Your task to perform on an android device: visit the assistant section in the google photos Image 0: 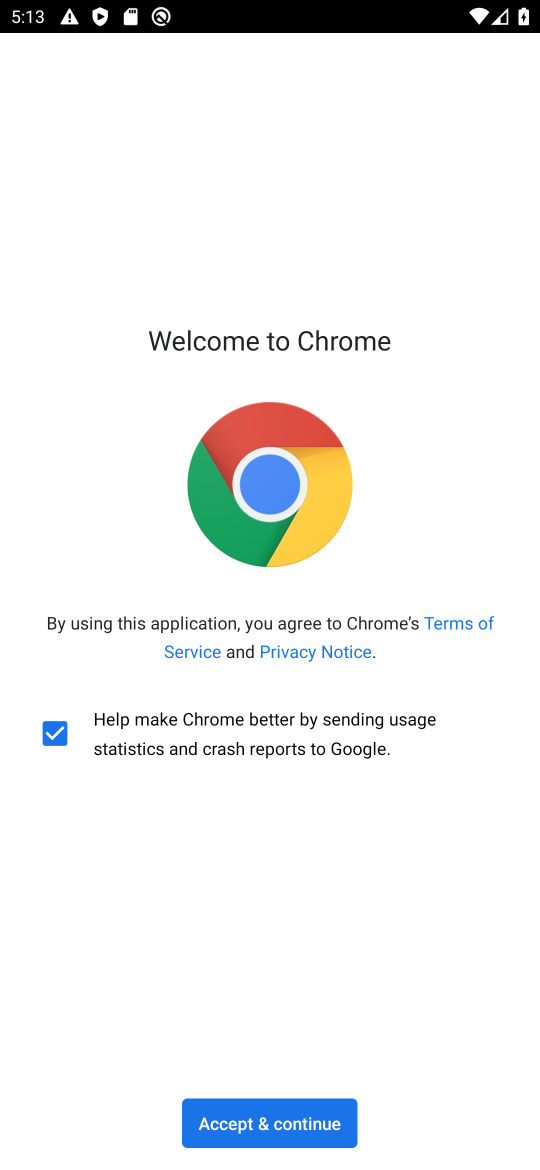
Step 0: press home button
Your task to perform on an android device: visit the assistant section in the google photos Image 1: 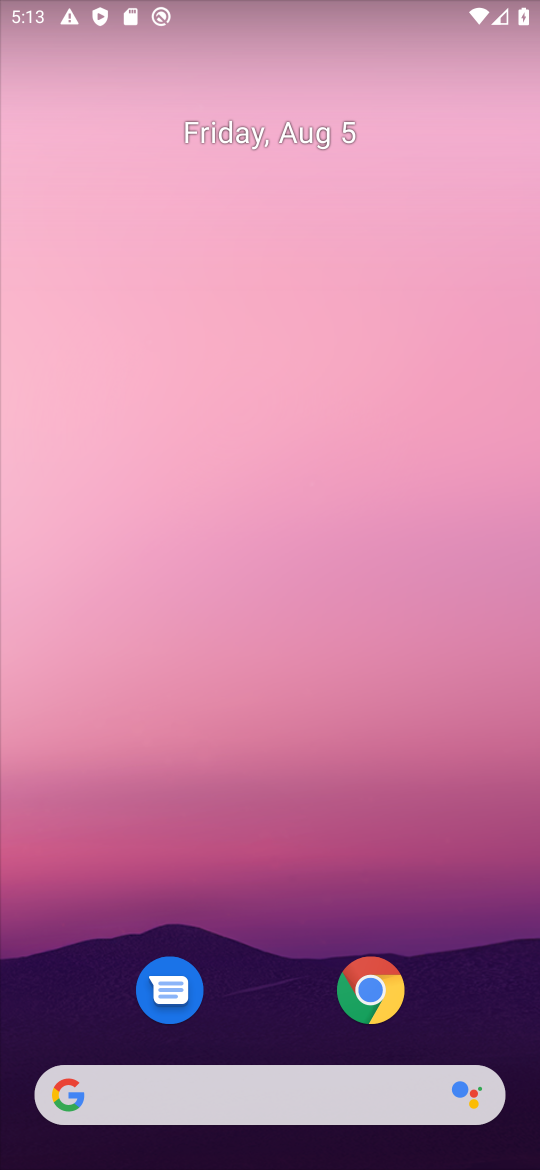
Step 1: drag from (191, 1052) to (233, 547)
Your task to perform on an android device: visit the assistant section in the google photos Image 2: 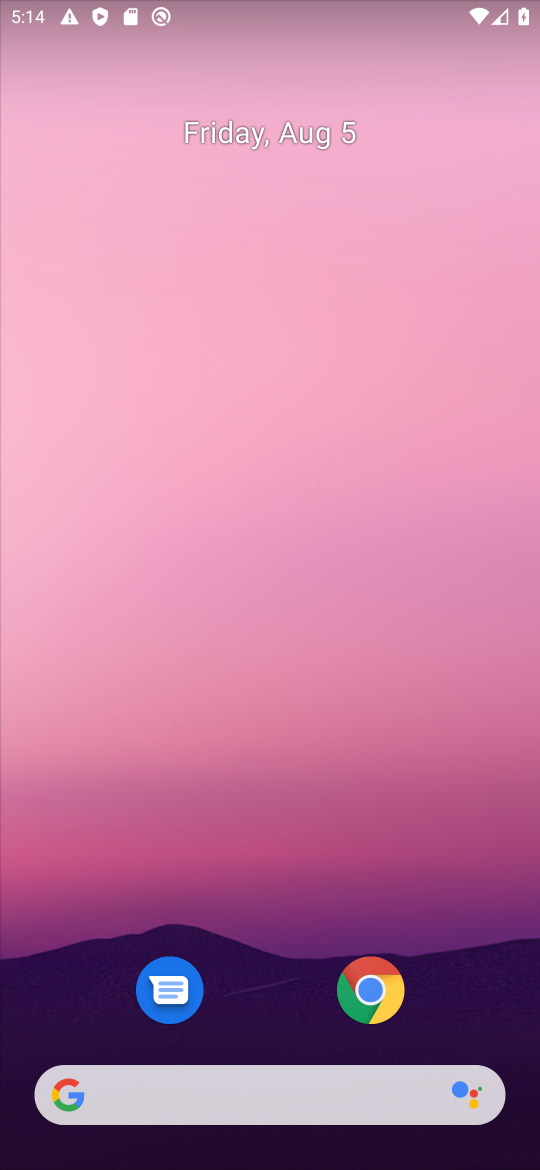
Step 2: drag from (279, 1056) to (277, 268)
Your task to perform on an android device: visit the assistant section in the google photos Image 3: 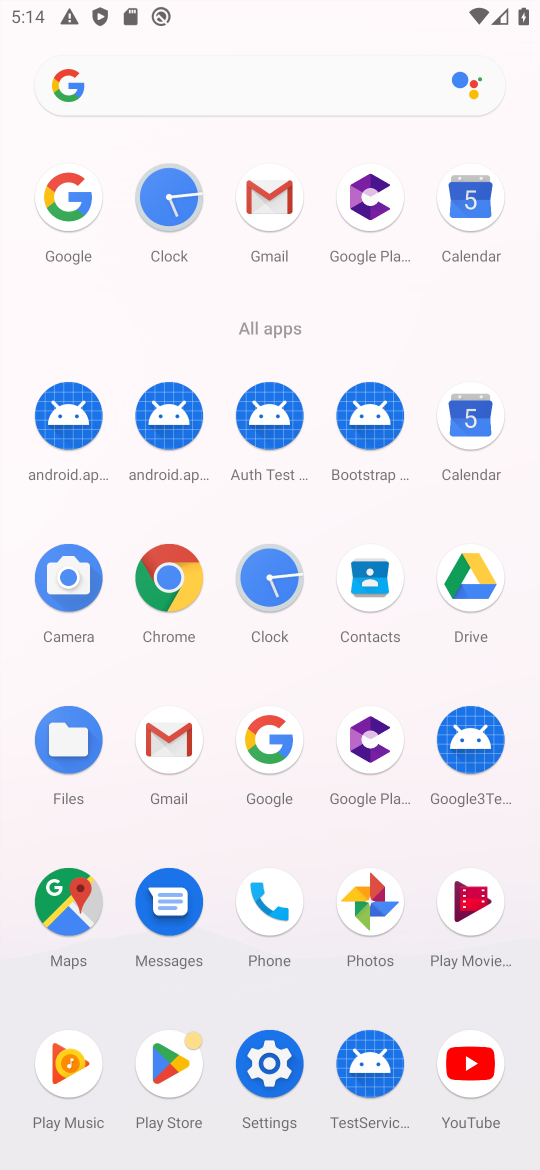
Step 3: click (368, 897)
Your task to perform on an android device: visit the assistant section in the google photos Image 4: 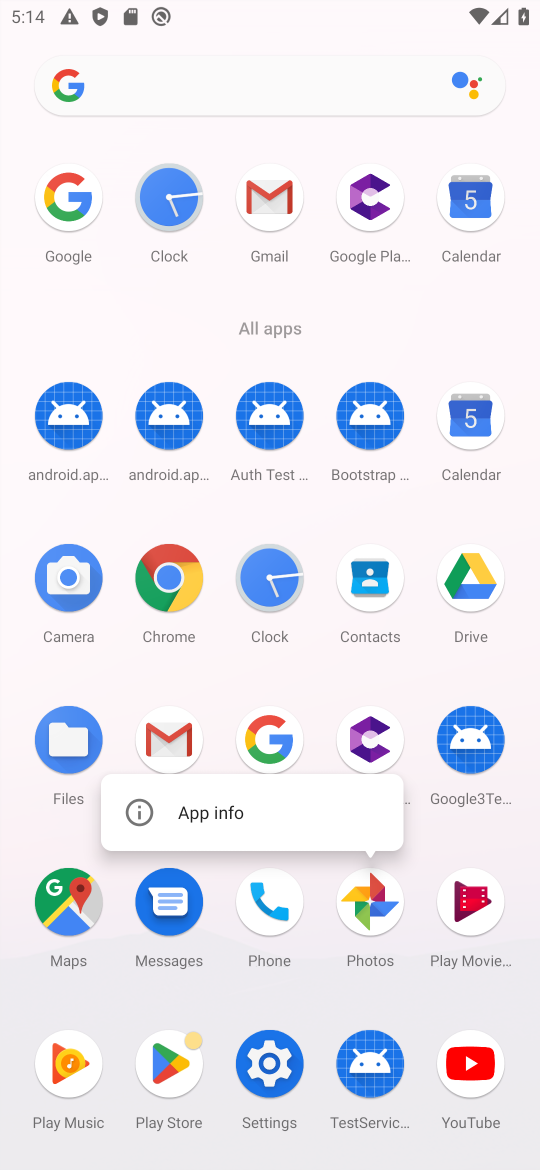
Step 4: click (366, 891)
Your task to perform on an android device: visit the assistant section in the google photos Image 5: 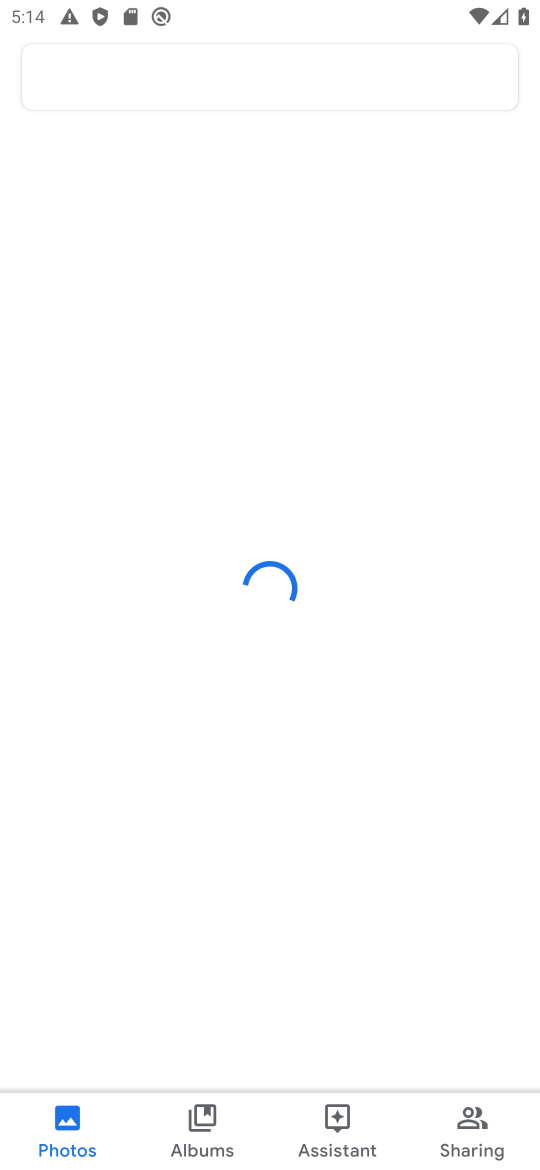
Step 5: click (316, 1126)
Your task to perform on an android device: visit the assistant section in the google photos Image 6: 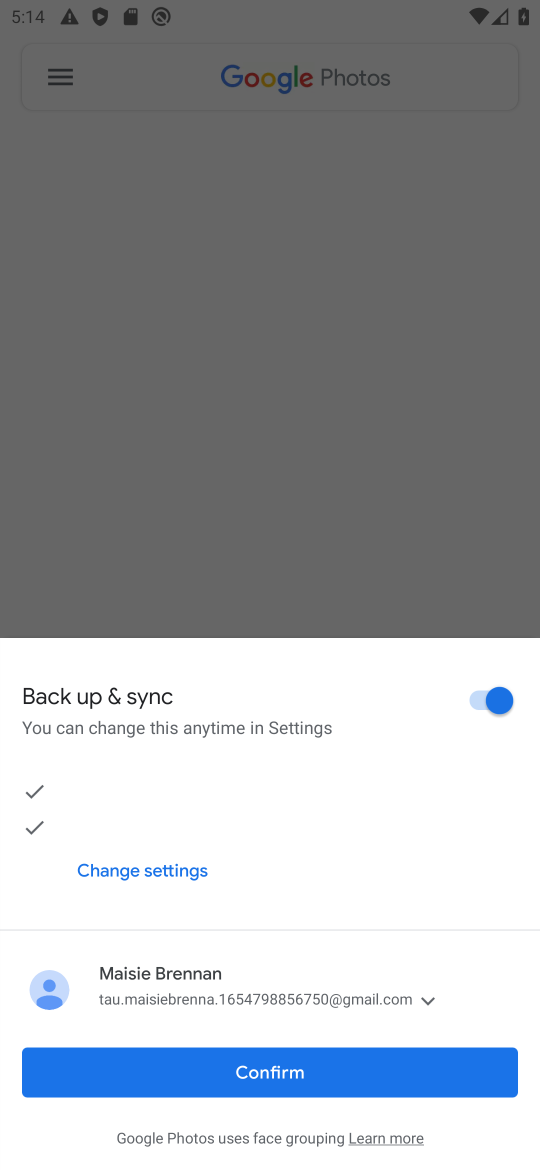
Step 6: click (259, 1078)
Your task to perform on an android device: visit the assistant section in the google photos Image 7: 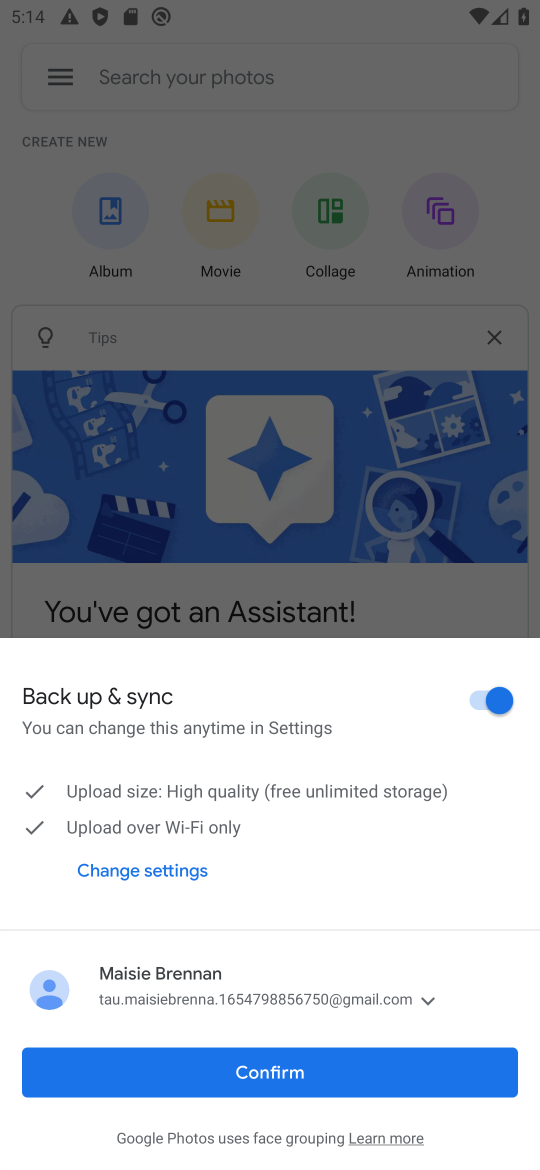
Step 7: click (240, 1076)
Your task to perform on an android device: visit the assistant section in the google photos Image 8: 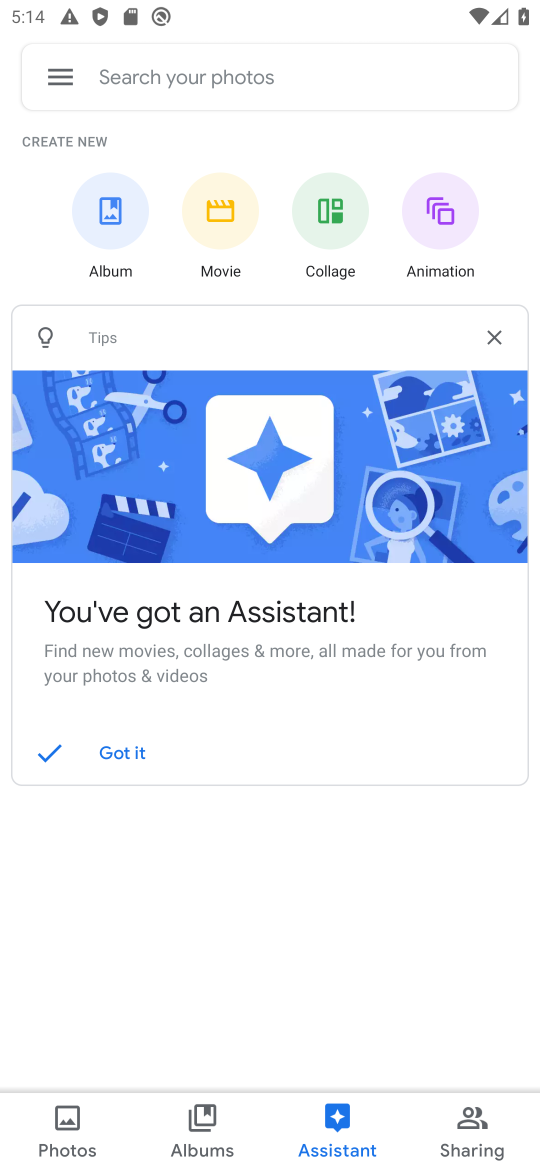
Step 8: task complete